Your task to perform on an android device: find photos in the google photos app Image 0: 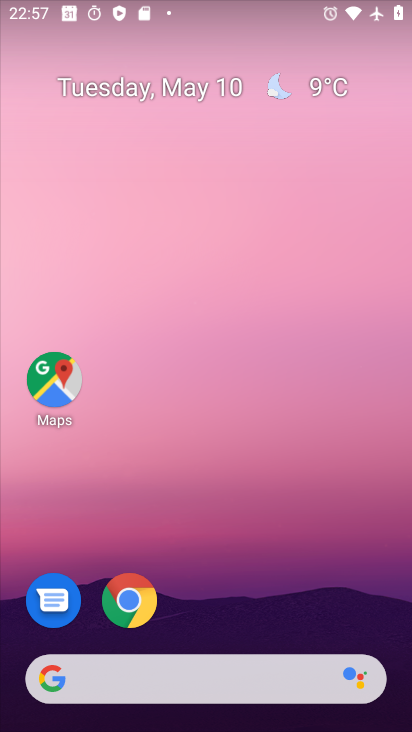
Step 0: drag from (262, 515) to (261, 171)
Your task to perform on an android device: find photos in the google photos app Image 1: 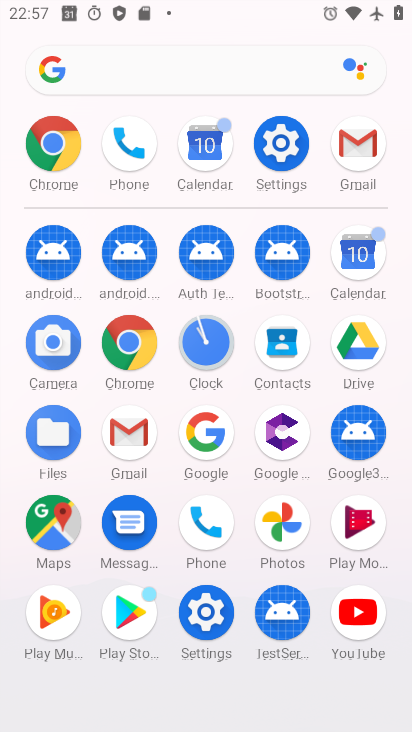
Step 1: click (274, 526)
Your task to perform on an android device: find photos in the google photos app Image 2: 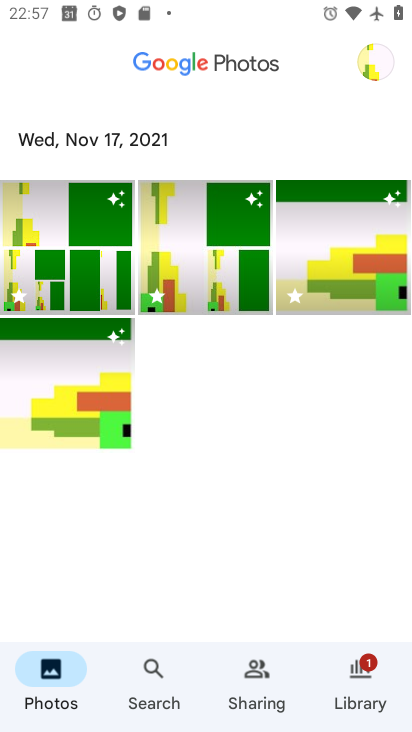
Step 2: click (85, 228)
Your task to perform on an android device: find photos in the google photos app Image 3: 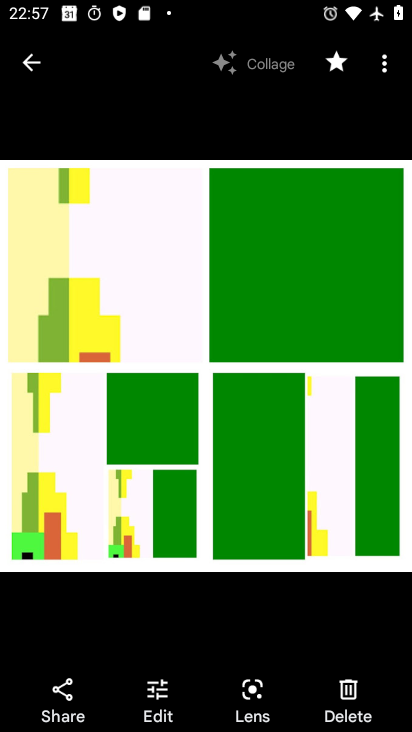
Step 3: task complete